Your task to perform on an android device: open a bookmark in the chrome app Image 0: 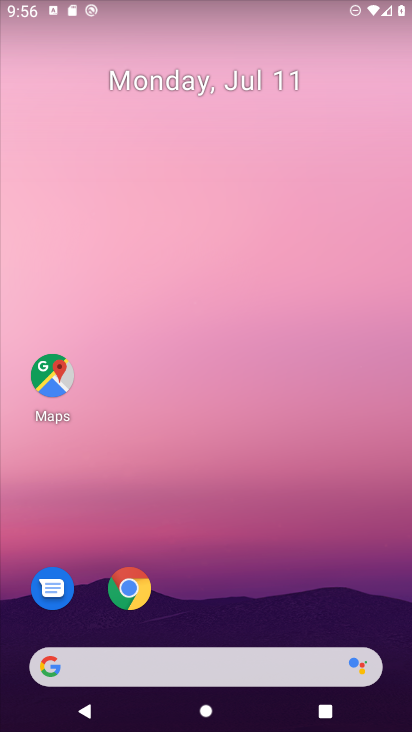
Step 0: drag from (365, 588) to (193, 37)
Your task to perform on an android device: open a bookmark in the chrome app Image 1: 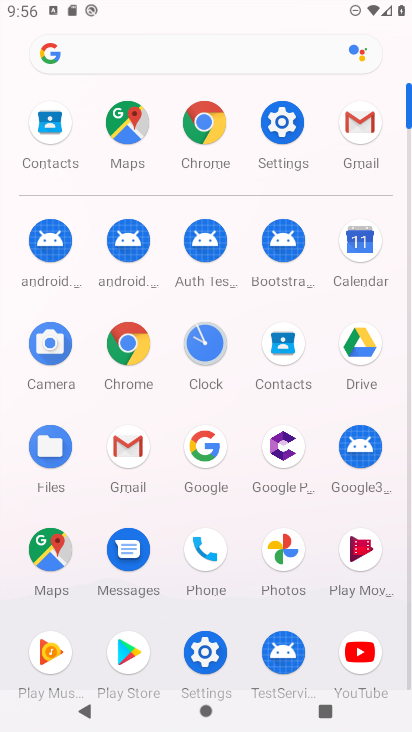
Step 1: click (205, 117)
Your task to perform on an android device: open a bookmark in the chrome app Image 2: 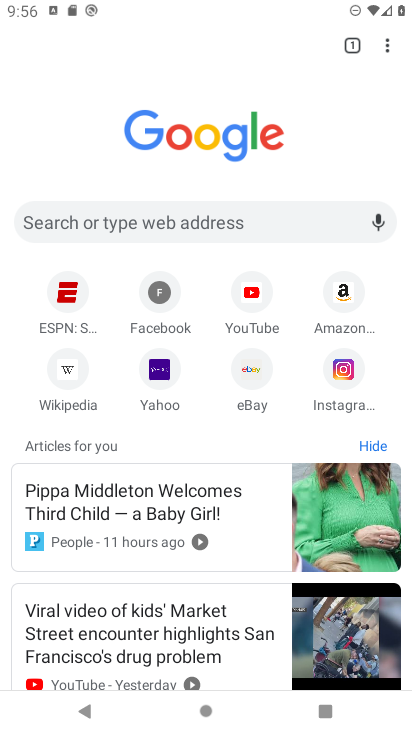
Step 2: click (385, 36)
Your task to perform on an android device: open a bookmark in the chrome app Image 3: 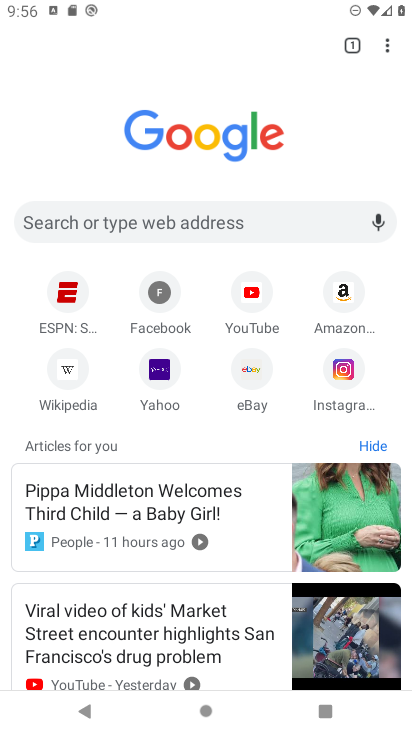
Step 3: click (383, 41)
Your task to perform on an android device: open a bookmark in the chrome app Image 4: 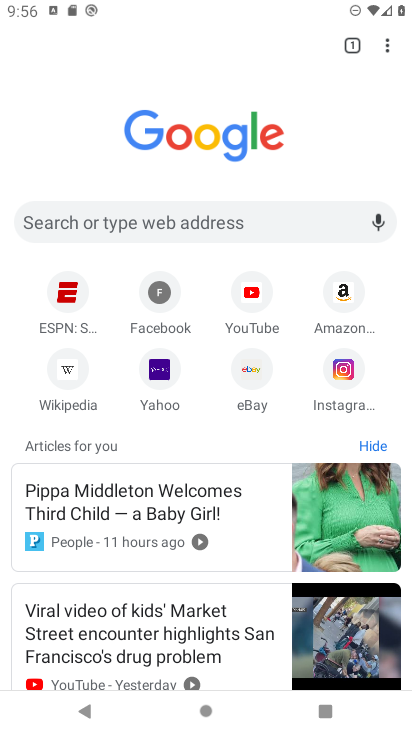
Step 4: click (383, 41)
Your task to perform on an android device: open a bookmark in the chrome app Image 5: 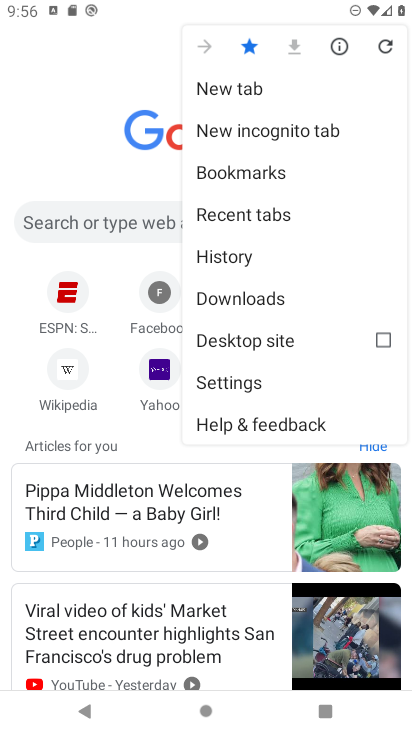
Step 5: click (257, 175)
Your task to perform on an android device: open a bookmark in the chrome app Image 6: 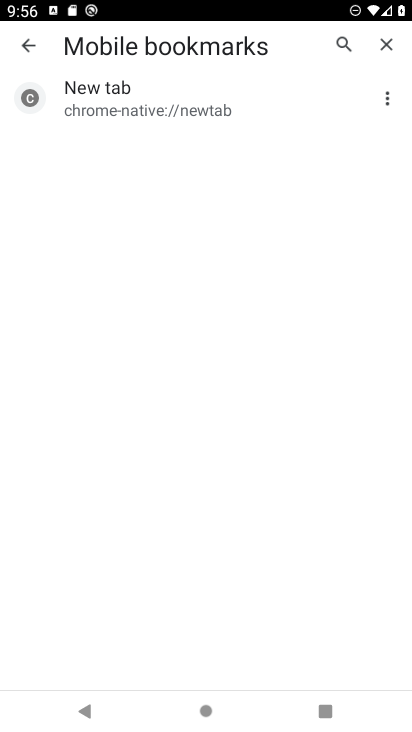
Step 6: task complete